Your task to perform on an android device: Who is the prime minister of the United Kingdom? Image 0: 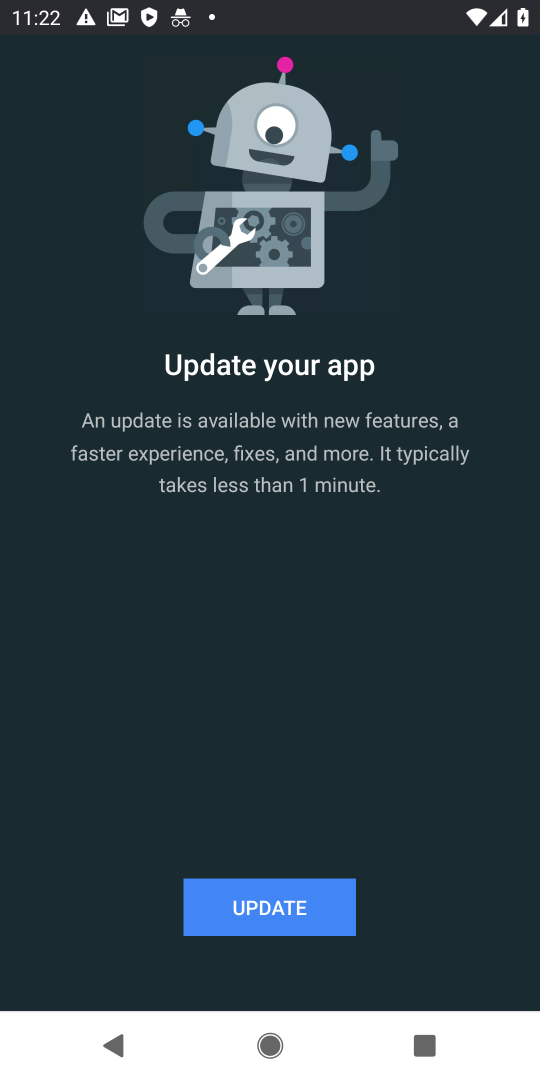
Step 0: press home button
Your task to perform on an android device: Who is the prime minister of the United Kingdom? Image 1: 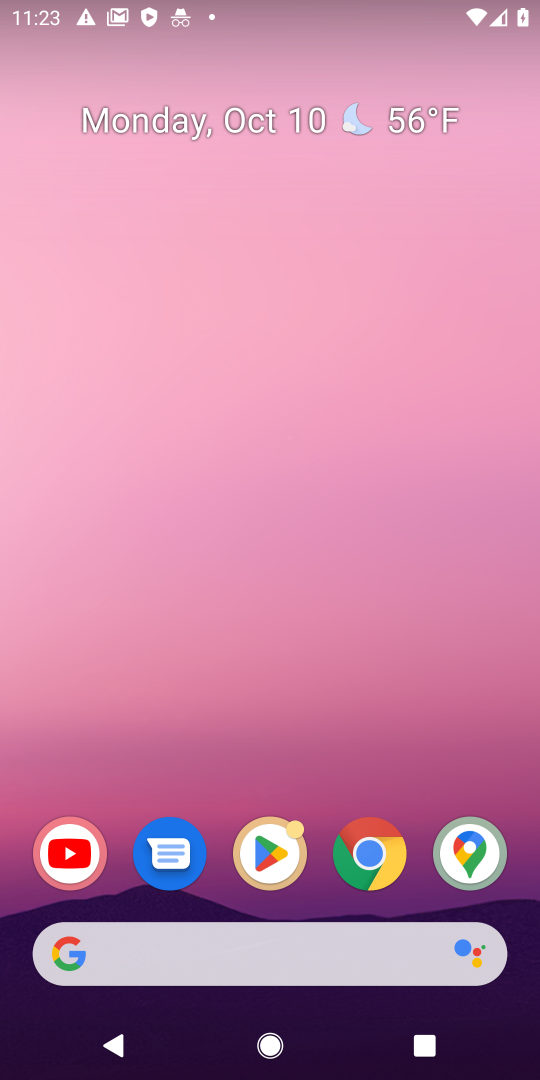
Step 1: click (260, 962)
Your task to perform on an android device: Who is the prime minister of the United Kingdom? Image 2: 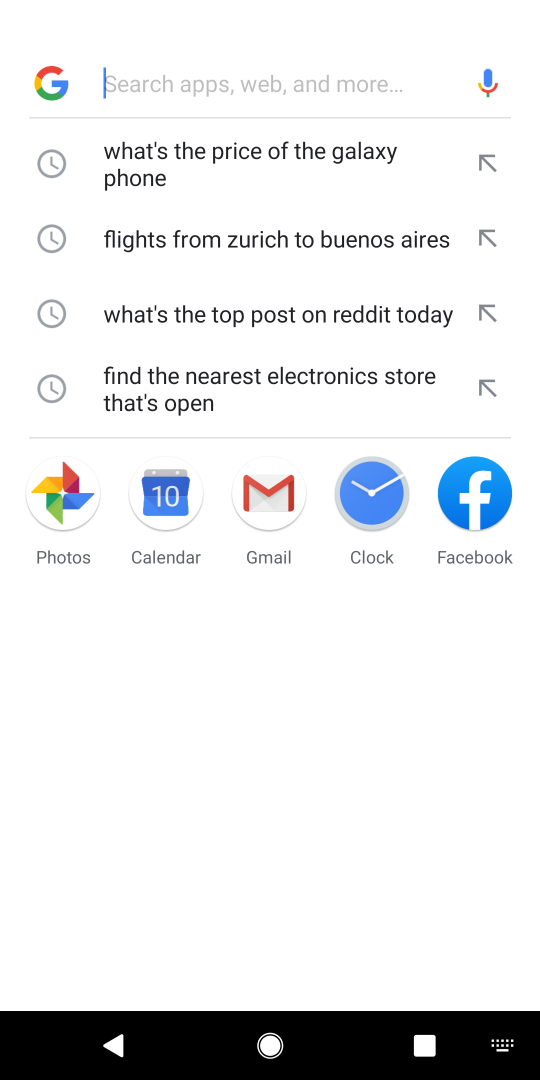
Step 2: press enter
Your task to perform on an android device: Who is the prime minister of the United Kingdom? Image 3: 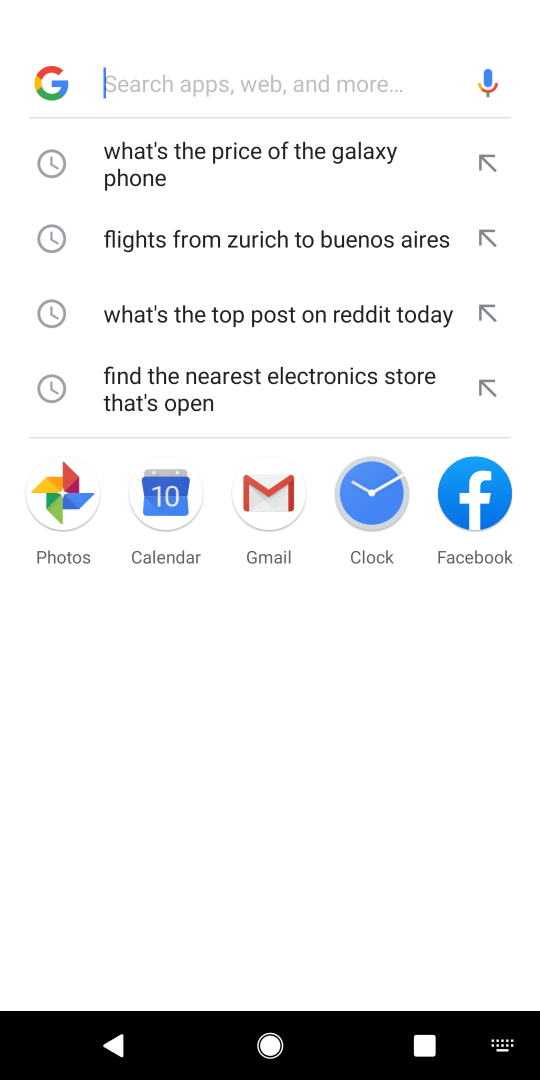
Step 3: type "Who is the prime minister of the United Kingdom"
Your task to perform on an android device: Who is the prime minister of the United Kingdom? Image 4: 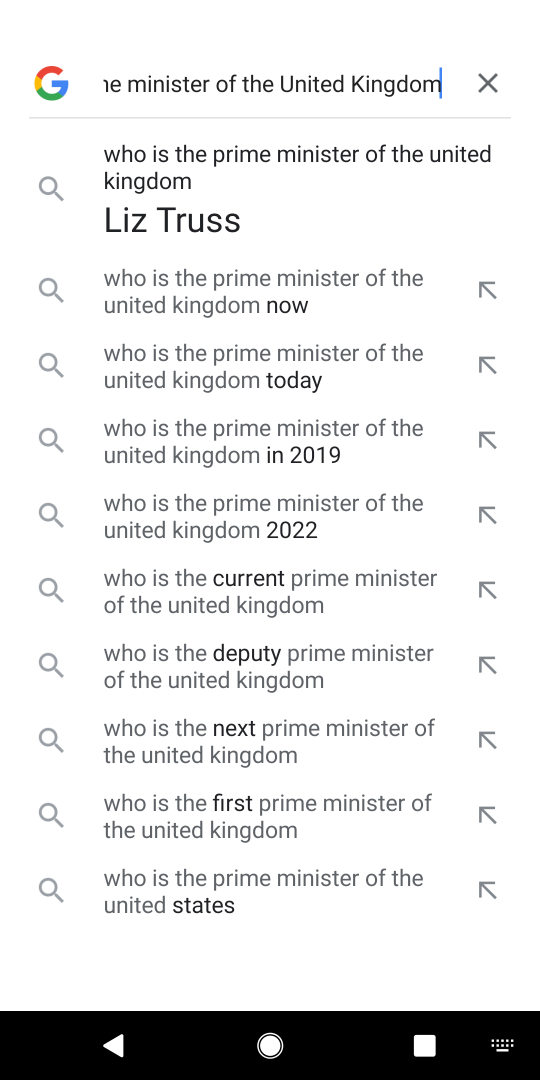
Step 4: press enter
Your task to perform on an android device: Who is the prime minister of the United Kingdom? Image 5: 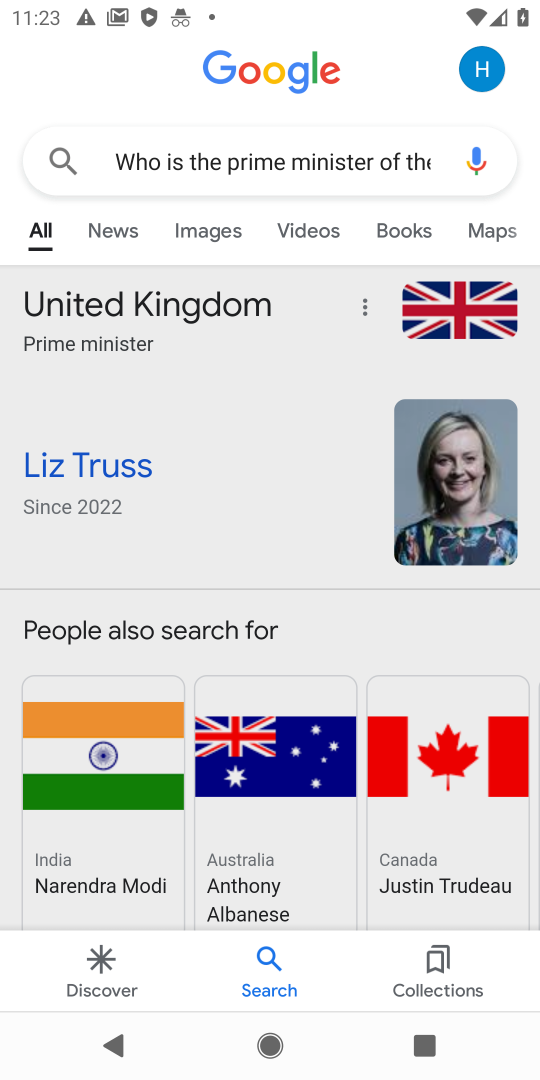
Step 5: task complete